Your task to perform on an android device: change timer sound Image 0: 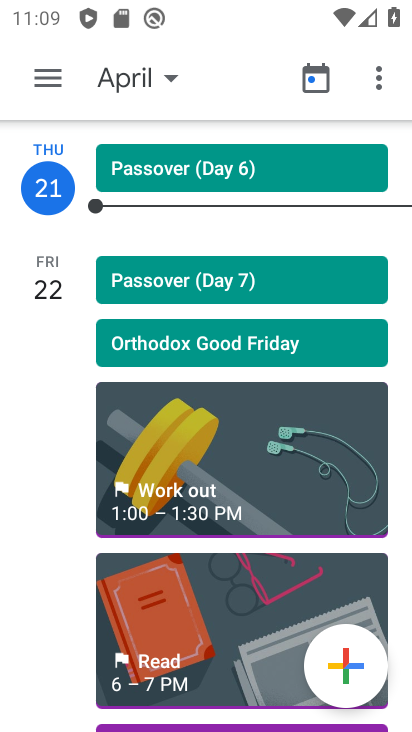
Step 0: press home button
Your task to perform on an android device: change timer sound Image 1: 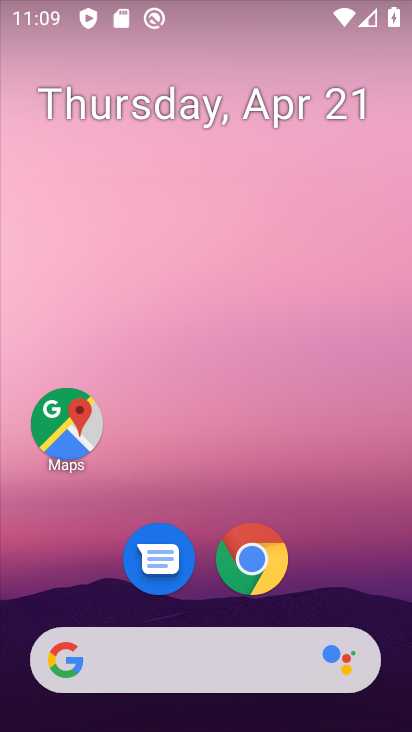
Step 1: drag from (358, 603) to (312, 68)
Your task to perform on an android device: change timer sound Image 2: 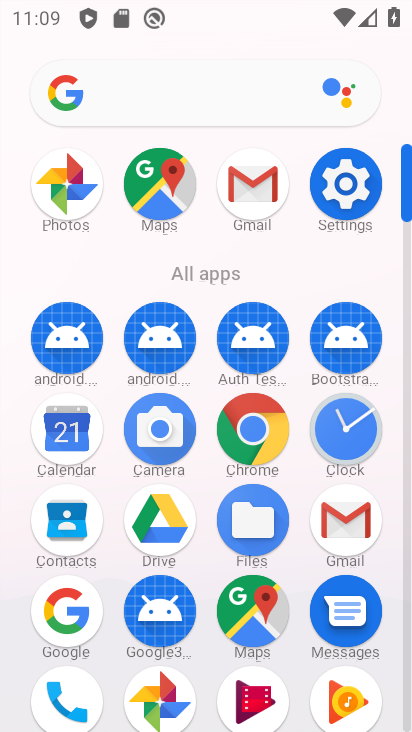
Step 2: click (359, 450)
Your task to perform on an android device: change timer sound Image 3: 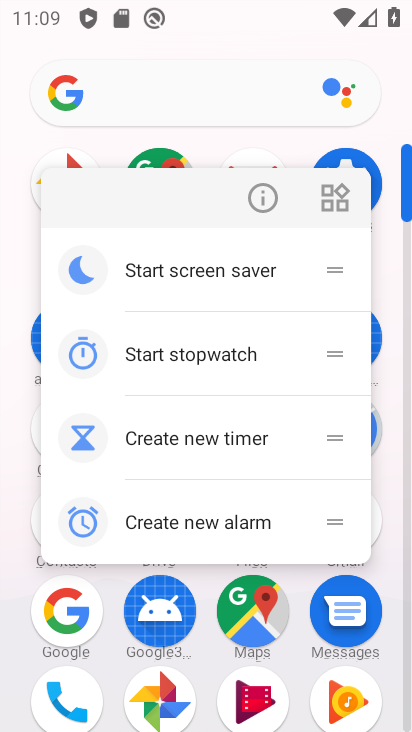
Step 3: click (406, 316)
Your task to perform on an android device: change timer sound Image 4: 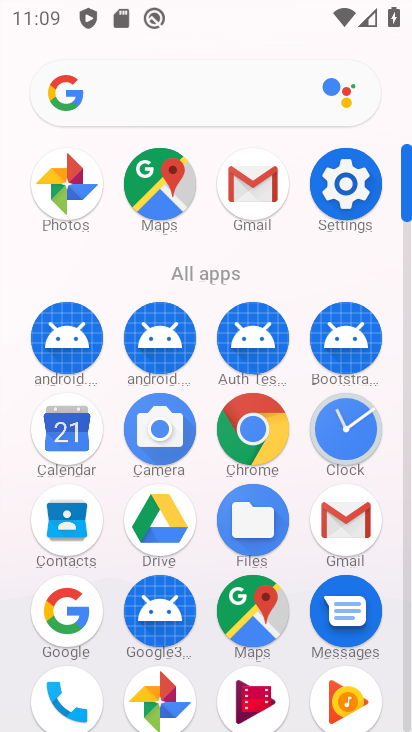
Step 4: click (352, 438)
Your task to perform on an android device: change timer sound Image 5: 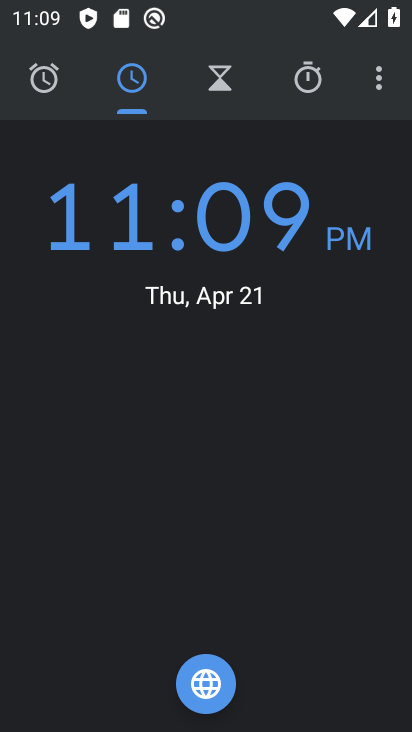
Step 5: click (377, 89)
Your task to perform on an android device: change timer sound Image 6: 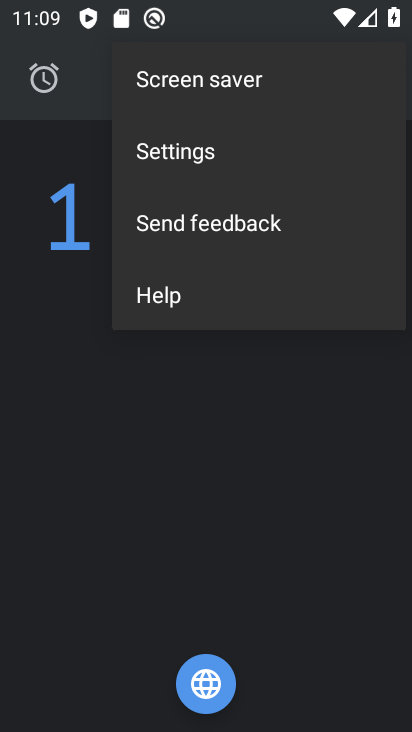
Step 6: click (197, 171)
Your task to perform on an android device: change timer sound Image 7: 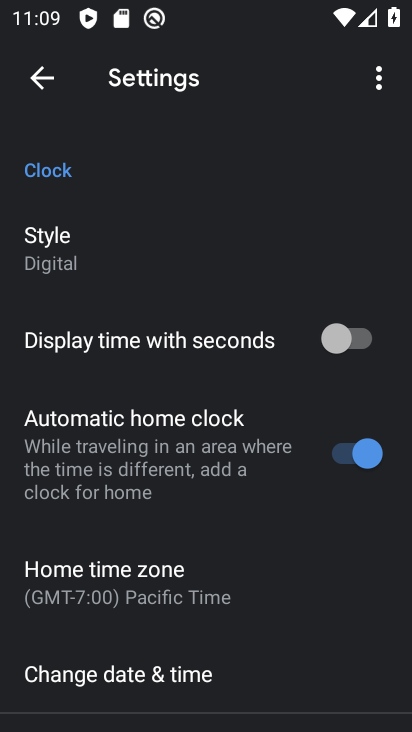
Step 7: drag from (222, 545) to (183, 29)
Your task to perform on an android device: change timer sound Image 8: 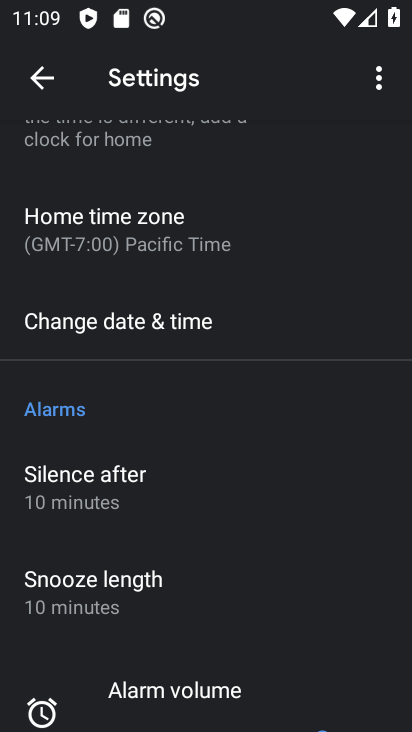
Step 8: drag from (191, 578) to (170, 3)
Your task to perform on an android device: change timer sound Image 9: 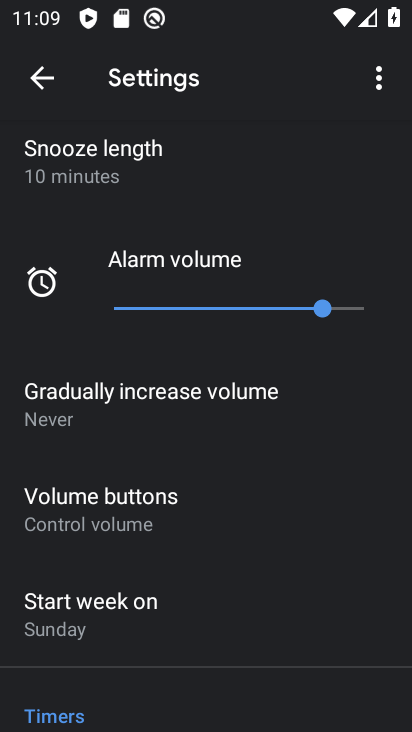
Step 9: drag from (168, 494) to (130, 41)
Your task to perform on an android device: change timer sound Image 10: 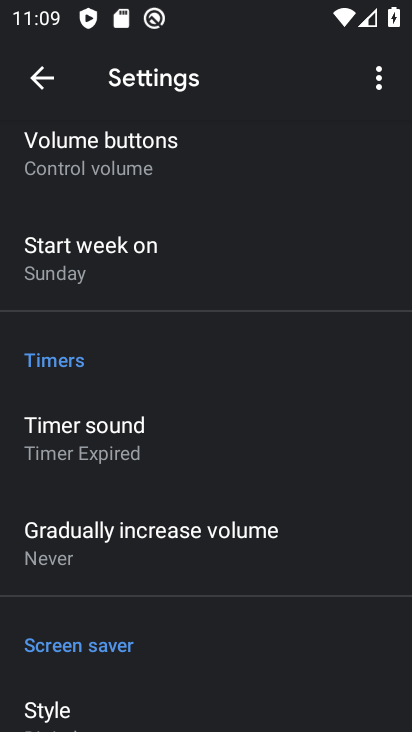
Step 10: click (120, 442)
Your task to perform on an android device: change timer sound Image 11: 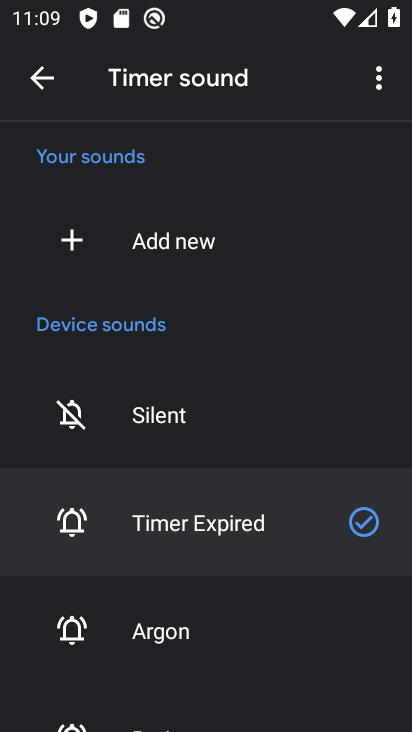
Step 11: click (171, 646)
Your task to perform on an android device: change timer sound Image 12: 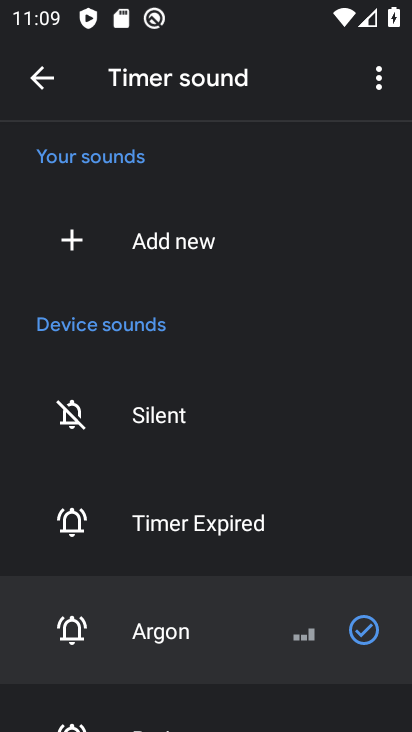
Step 12: task complete